Your task to perform on an android device: turn off notifications settings in the gmail app Image 0: 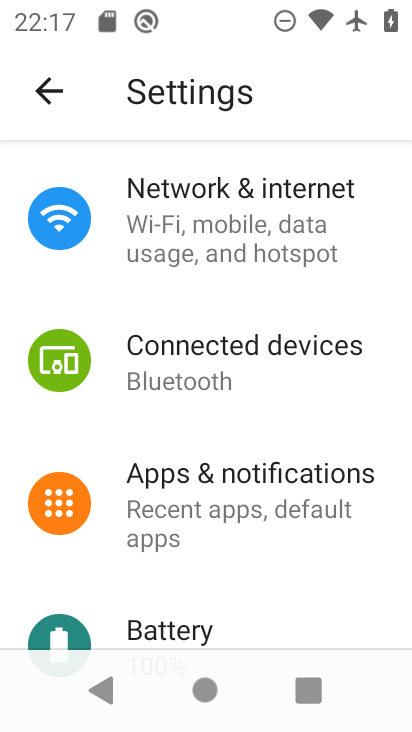
Step 0: press home button
Your task to perform on an android device: turn off notifications settings in the gmail app Image 1: 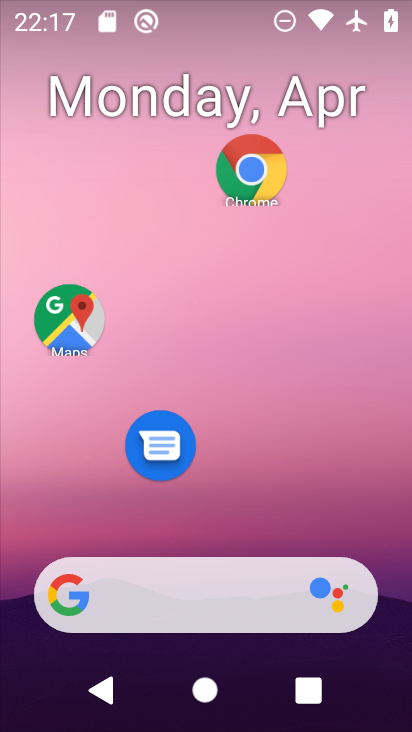
Step 1: drag from (208, 504) to (218, 106)
Your task to perform on an android device: turn off notifications settings in the gmail app Image 2: 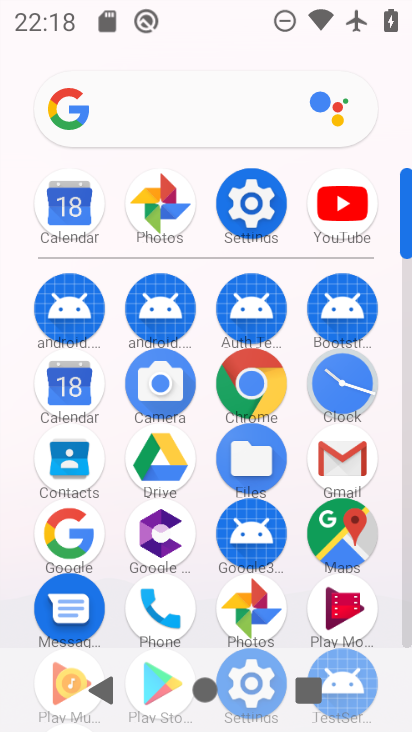
Step 2: click (339, 453)
Your task to perform on an android device: turn off notifications settings in the gmail app Image 3: 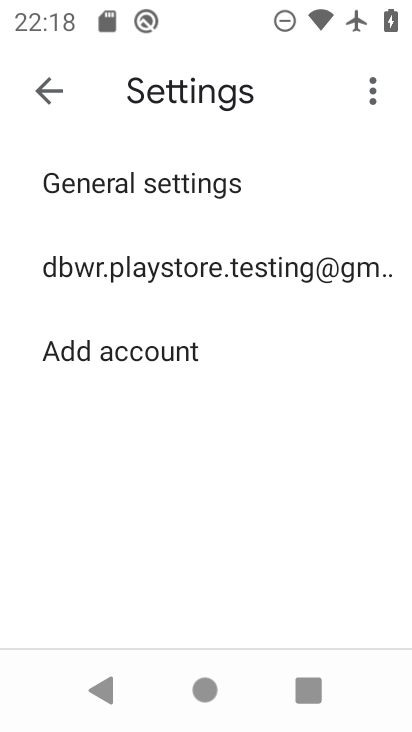
Step 3: click (221, 279)
Your task to perform on an android device: turn off notifications settings in the gmail app Image 4: 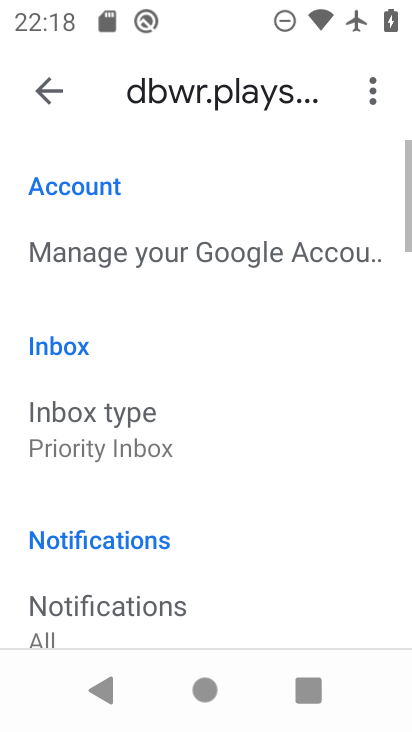
Step 4: drag from (228, 552) to (217, 164)
Your task to perform on an android device: turn off notifications settings in the gmail app Image 5: 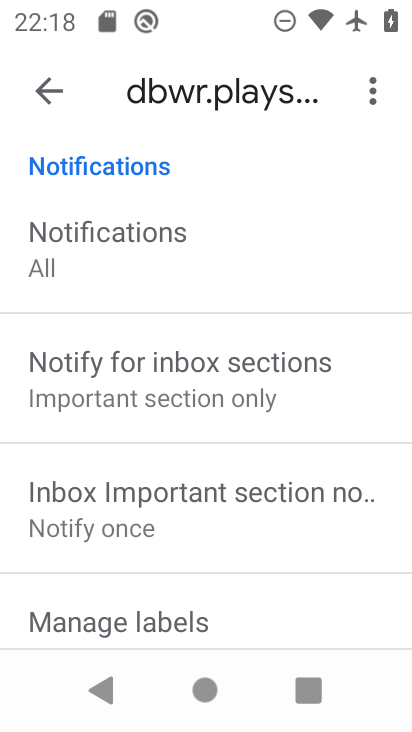
Step 5: drag from (258, 550) to (248, 268)
Your task to perform on an android device: turn off notifications settings in the gmail app Image 6: 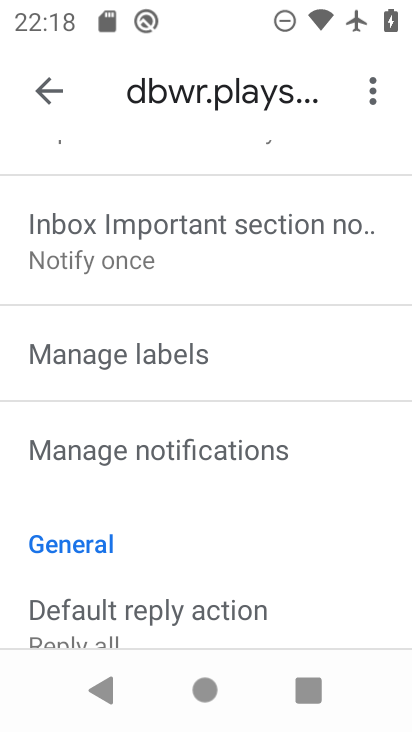
Step 6: click (233, 454)
Your task to perform on an android device: turn off notifications settings in the gmail app Image 7: 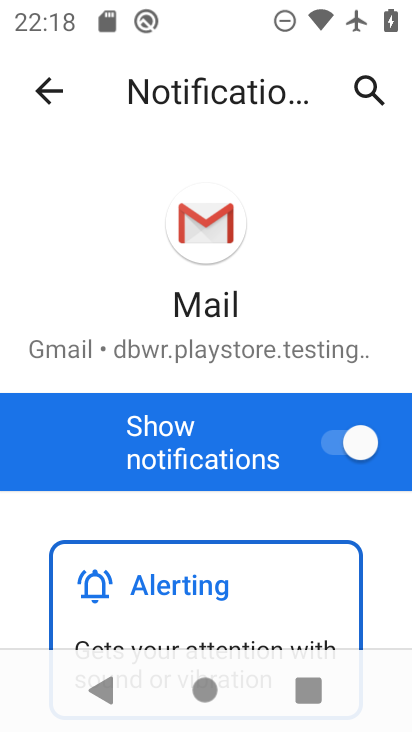
Step 7: click (334, 435)
Your task to perform on an android device: turn off notifications settings in the gmail app Image 8: 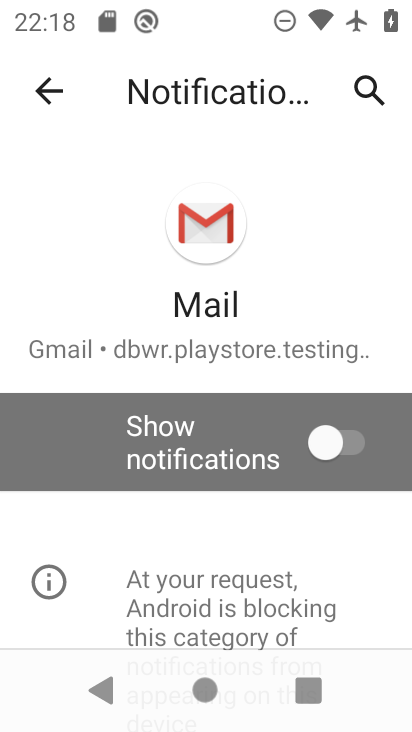
Step 8: task complete